Your task to perform on an android device: Open privacy settings Image 0: 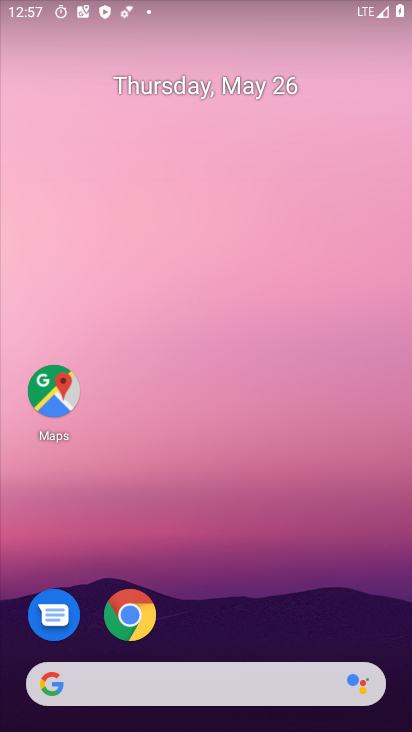
Step 0: drag from (238, 631) to (191, 189)
Your task to perform on an android device: Open privacy settings Image 1: 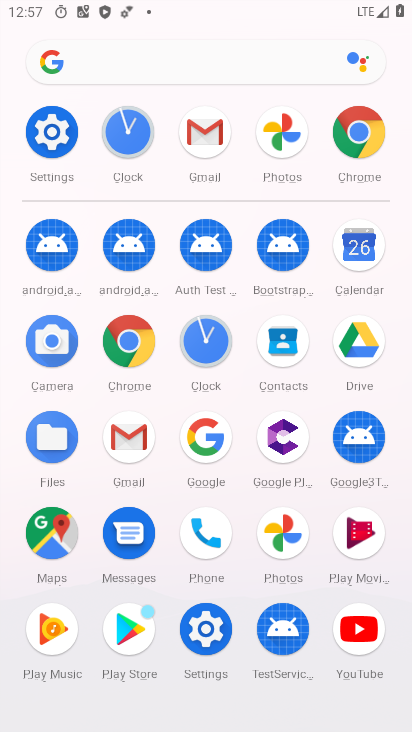
Step 1: click (65, 136)
Your task to perform on an android device: Open privacy settings Image 2: 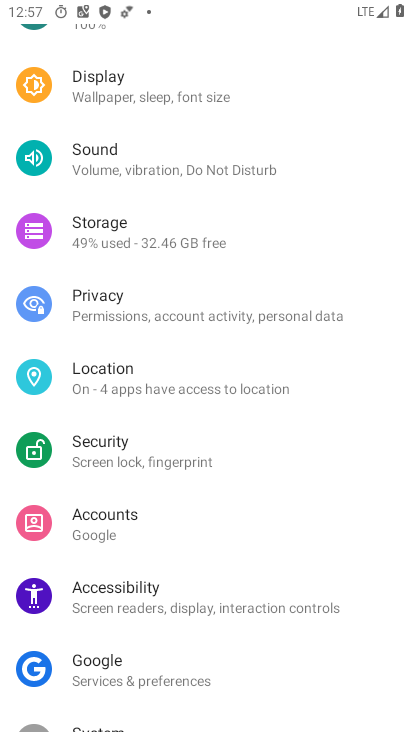
Step 2: click (149, 311)
Your task to perform on an android device: Open privacy settings Image 3: 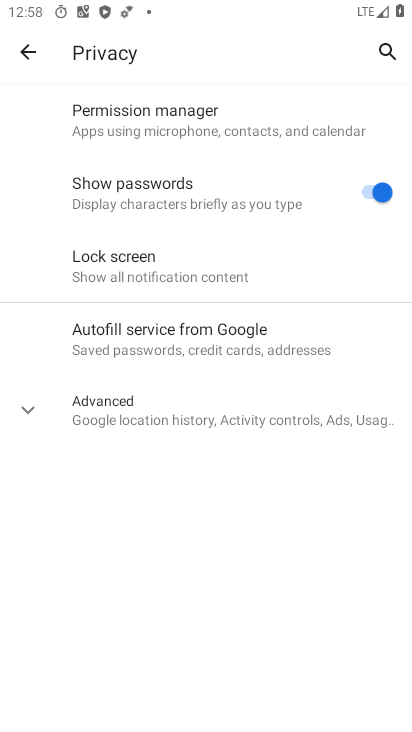
Step 3: task complete